Your task to perform on an android device: delete browsing data in the chrome app Image 0: 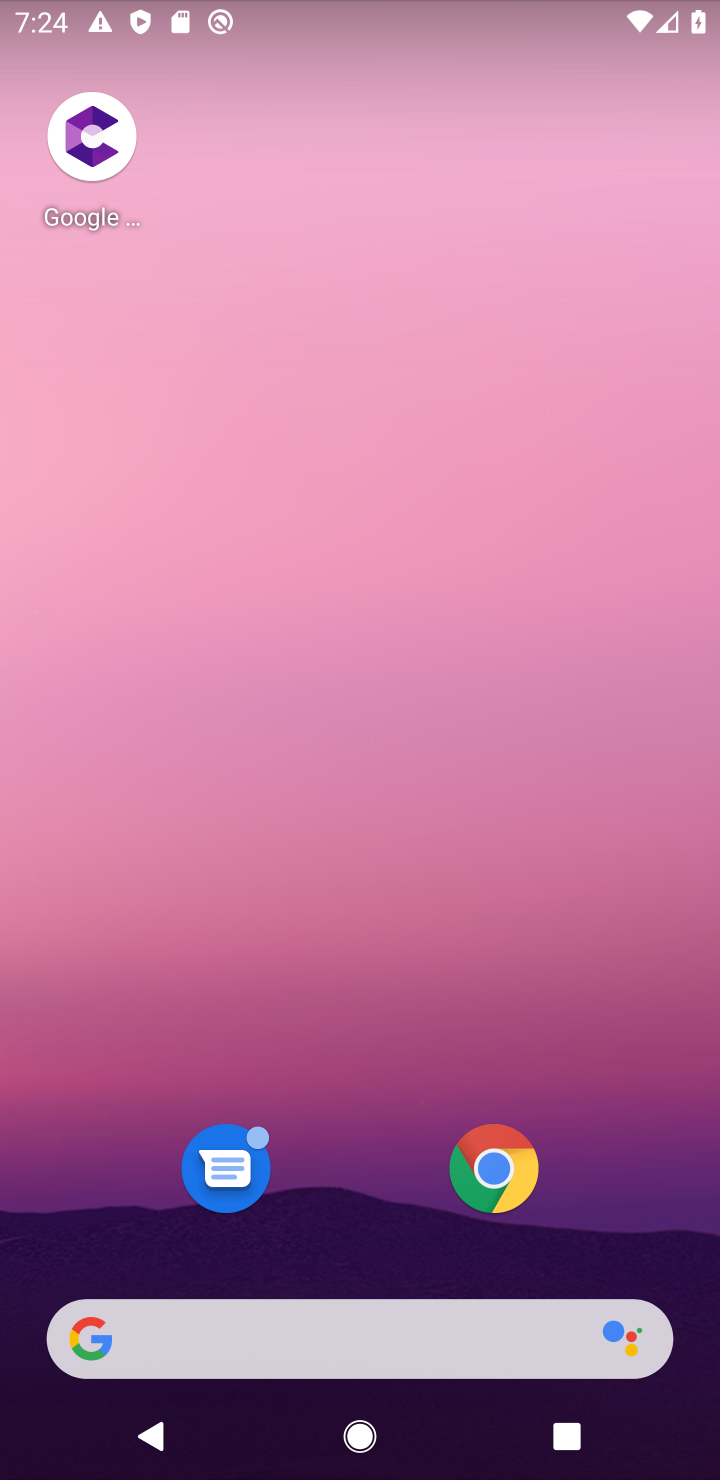
Step 0: click (492, 1171)
Your task to perform on an android device: delete browsing data in the chrome app Image 1: 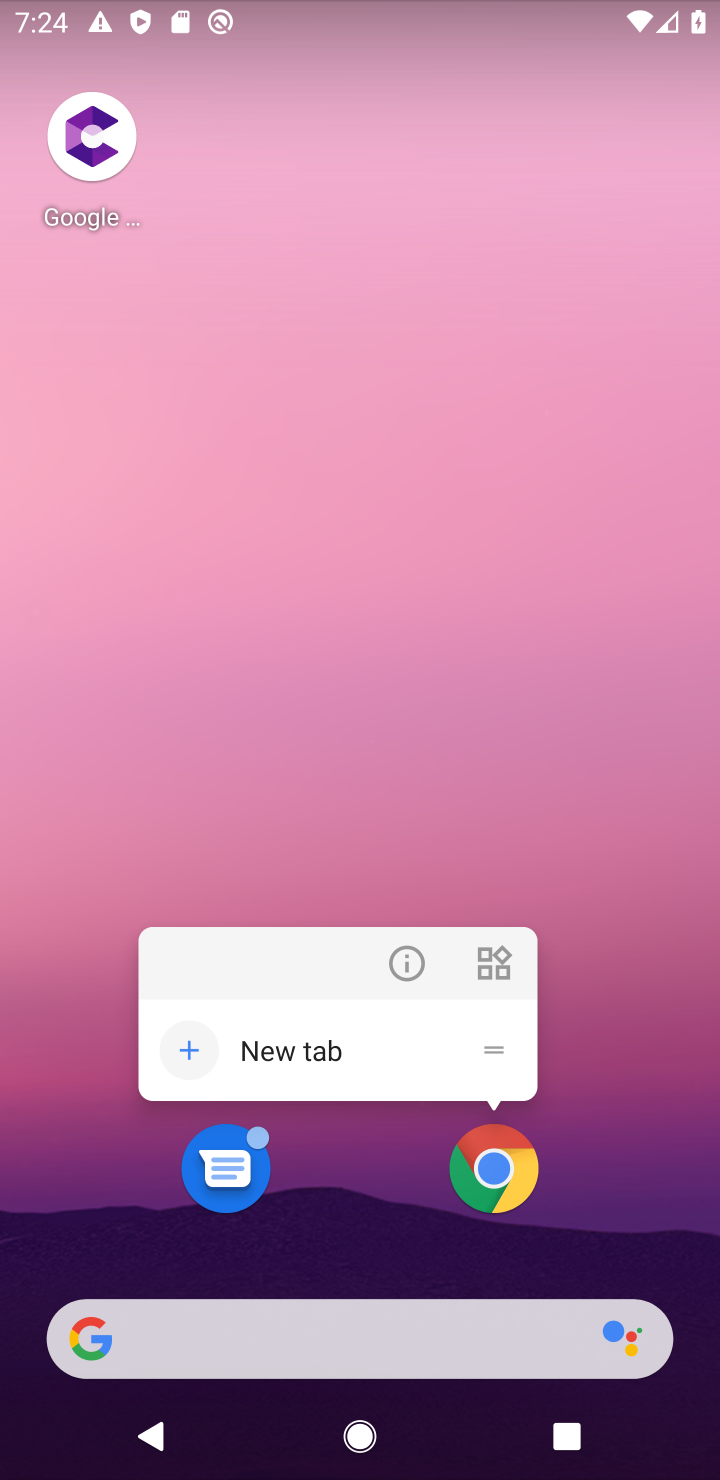
Step 1: click (492, 1171)
Your task to perform on an android device: delete browsing data in the chrome app Image 2: 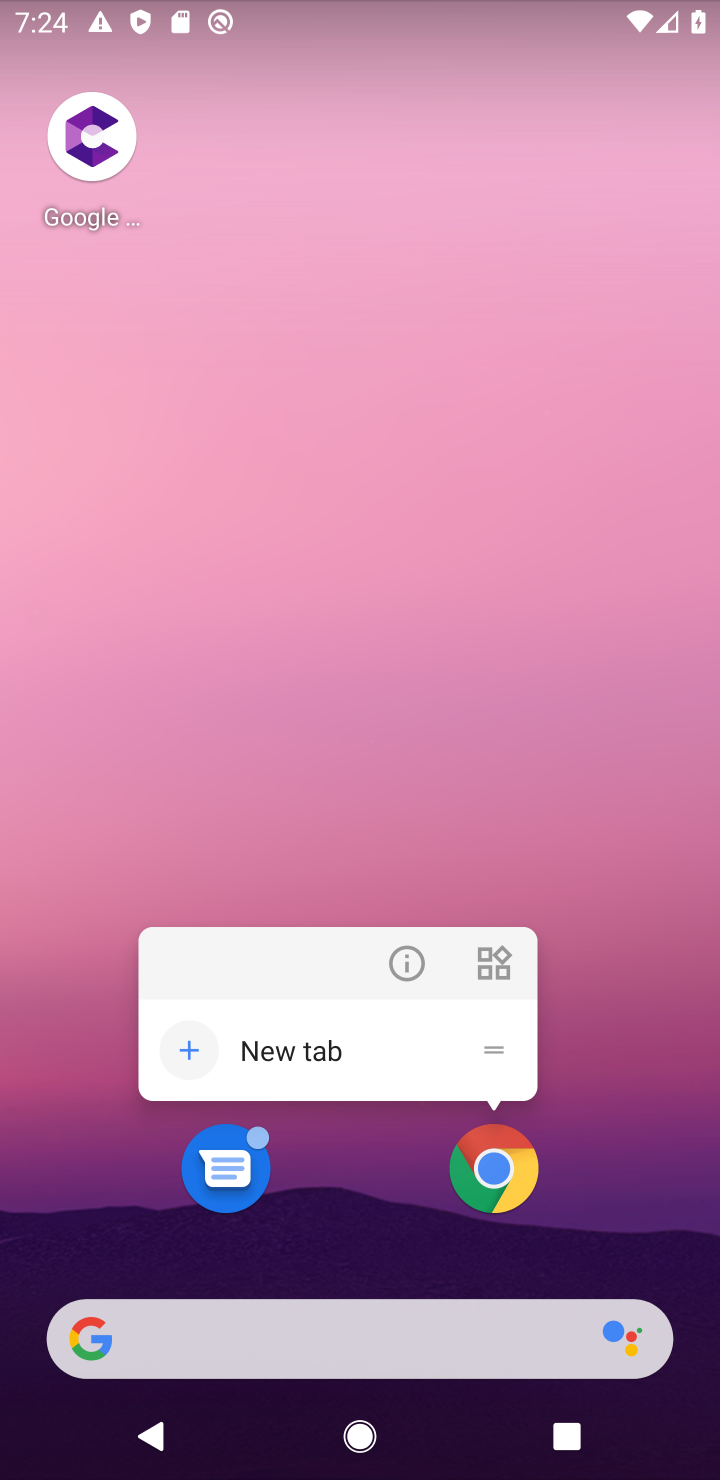
Step 2: click (492, 1171)
Your task to perform on an android device: delete browsing data in the chrome app Image 3: 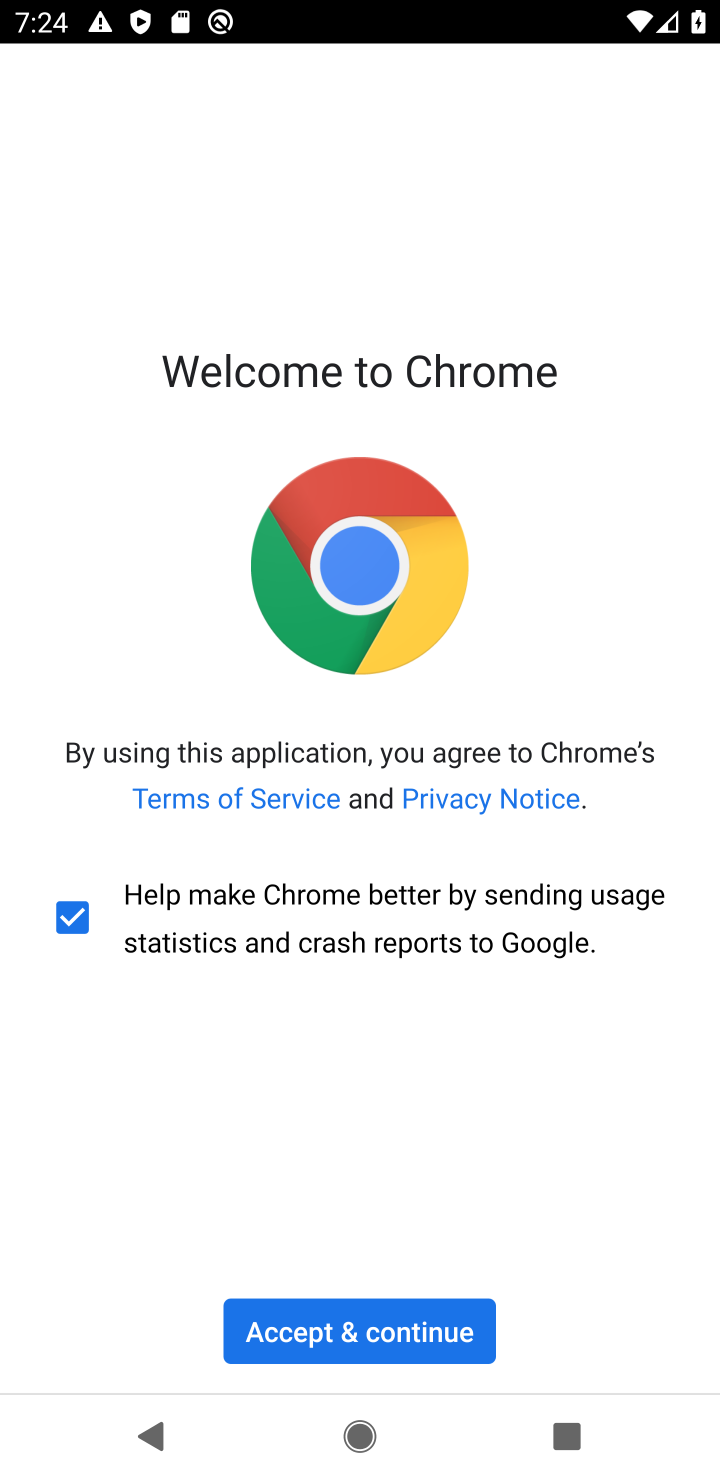
Step 3: click (377, 1328)
Your task to perform on an android device: delete browsing data in the chrome app Image 4: 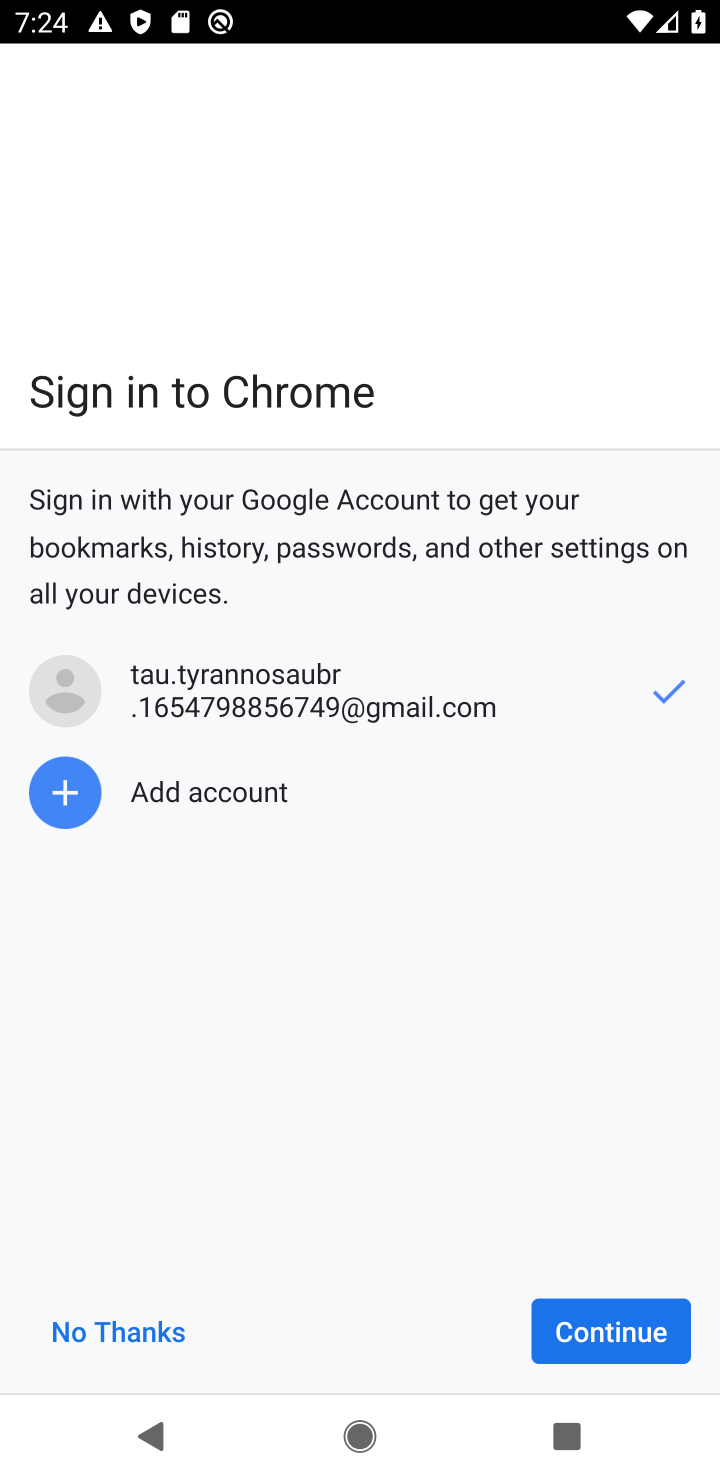
Step 4: click (559, 1332)
Your task to perform on an android device: delete browsing data in the chrome app Image 5: 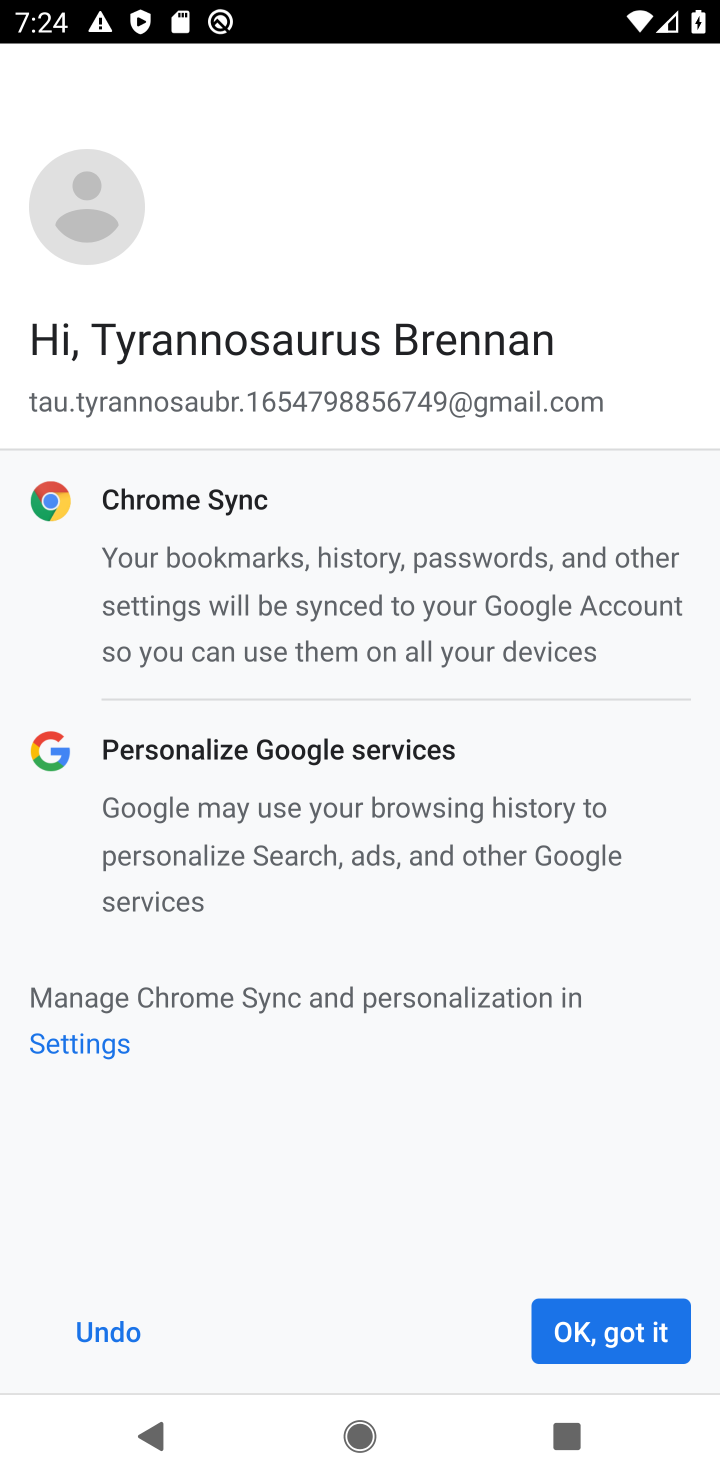
Step 5: click (559, 1332)
Your task to perform on an android device: delete browsing data in the chrome app Image 6: 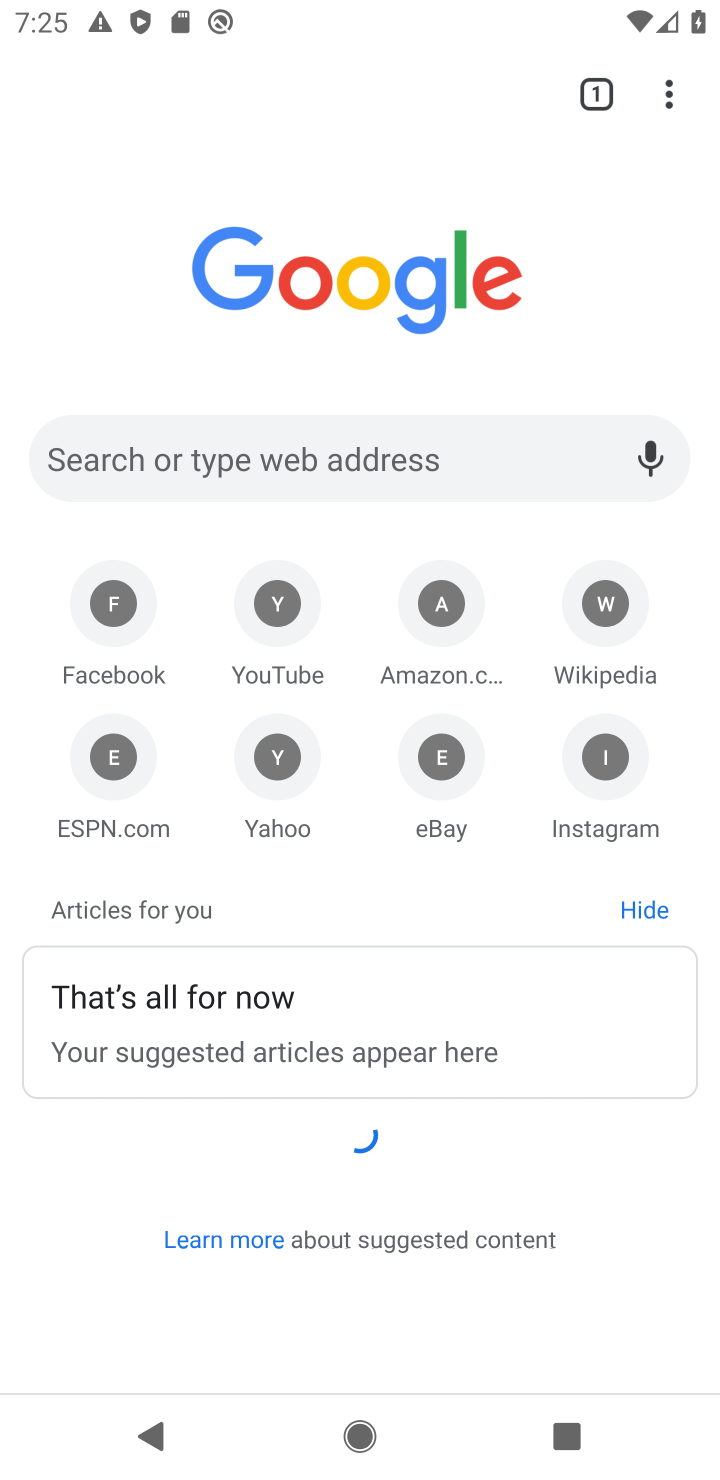
Step 6: click (675, 96)
Your task to perform on an android device: delete browsing data in the chrome app Image 7: 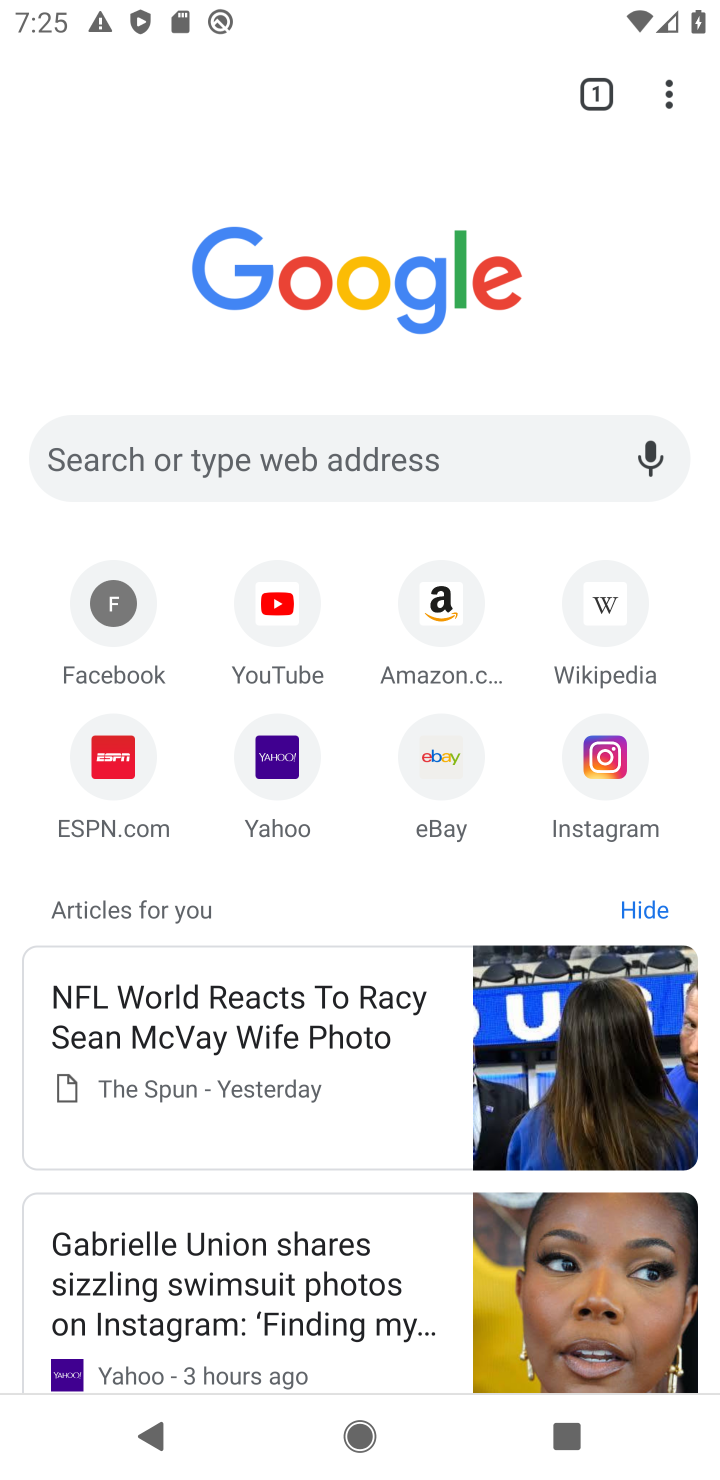
Step 7: drag from (661, 84) to (531, 782)
Your task to perform on an android device: delete browsing data in the chrome app Image 8: 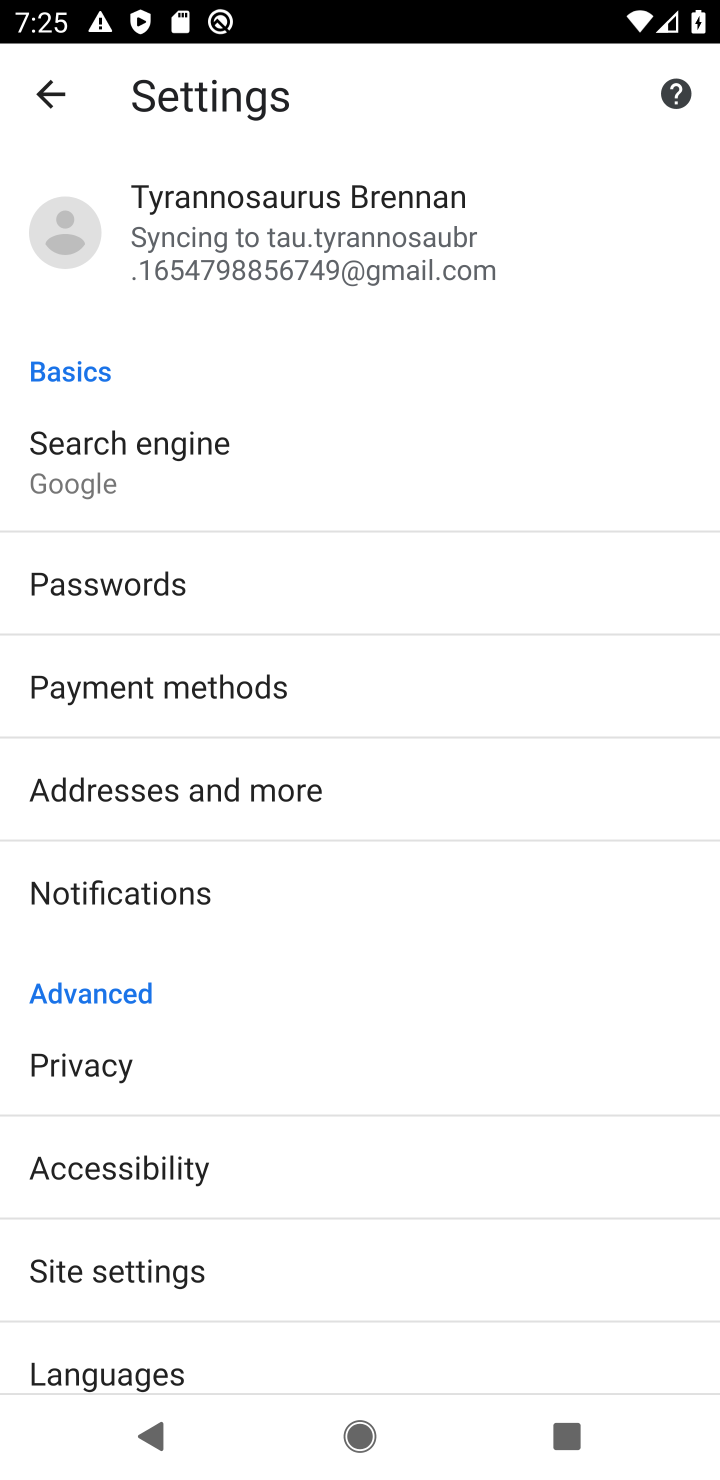
Step 8: drag from (273, 1243) to (452, 712)
Your task to perform on an android device: delete browsing data in the chrome app Image 9: 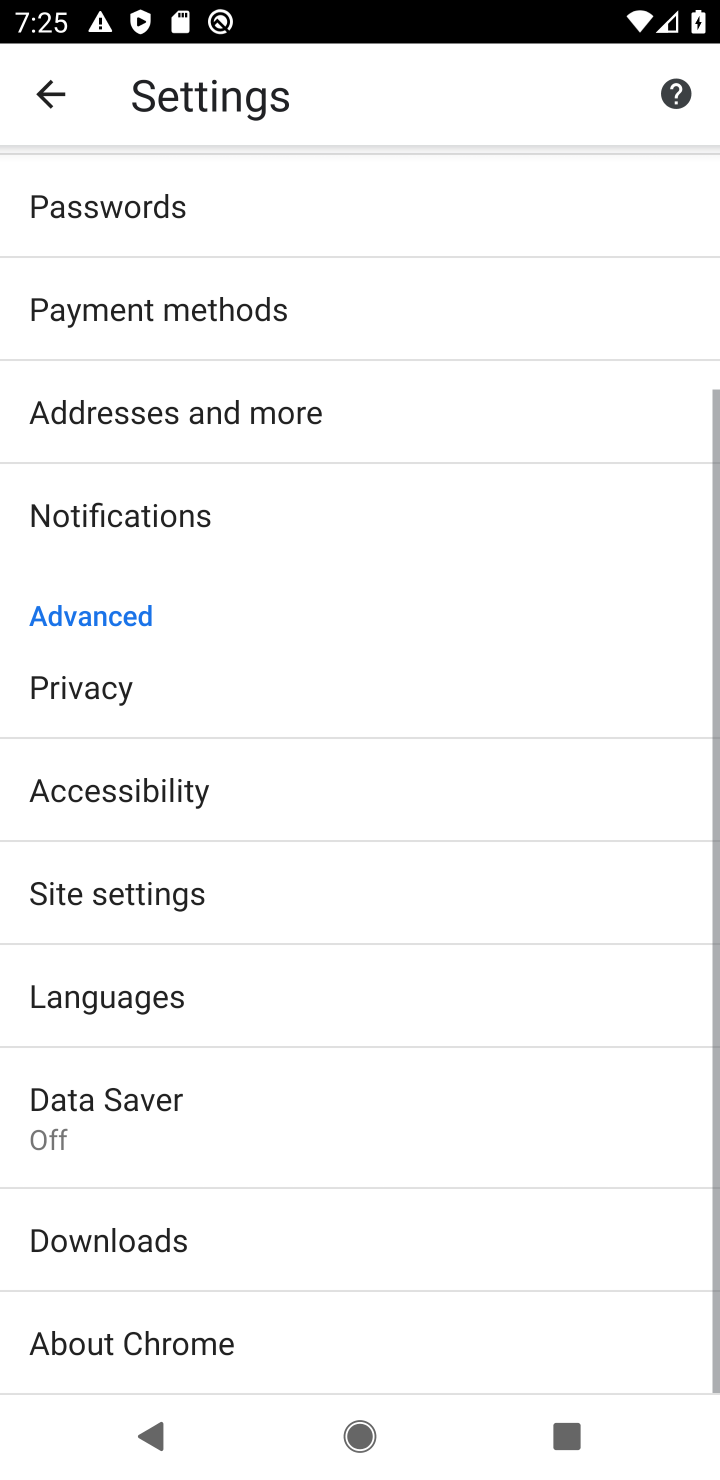
Step 9: click (84, 683)
Your task to perform on an android device: delete browsing data in the chrome app Image 10: 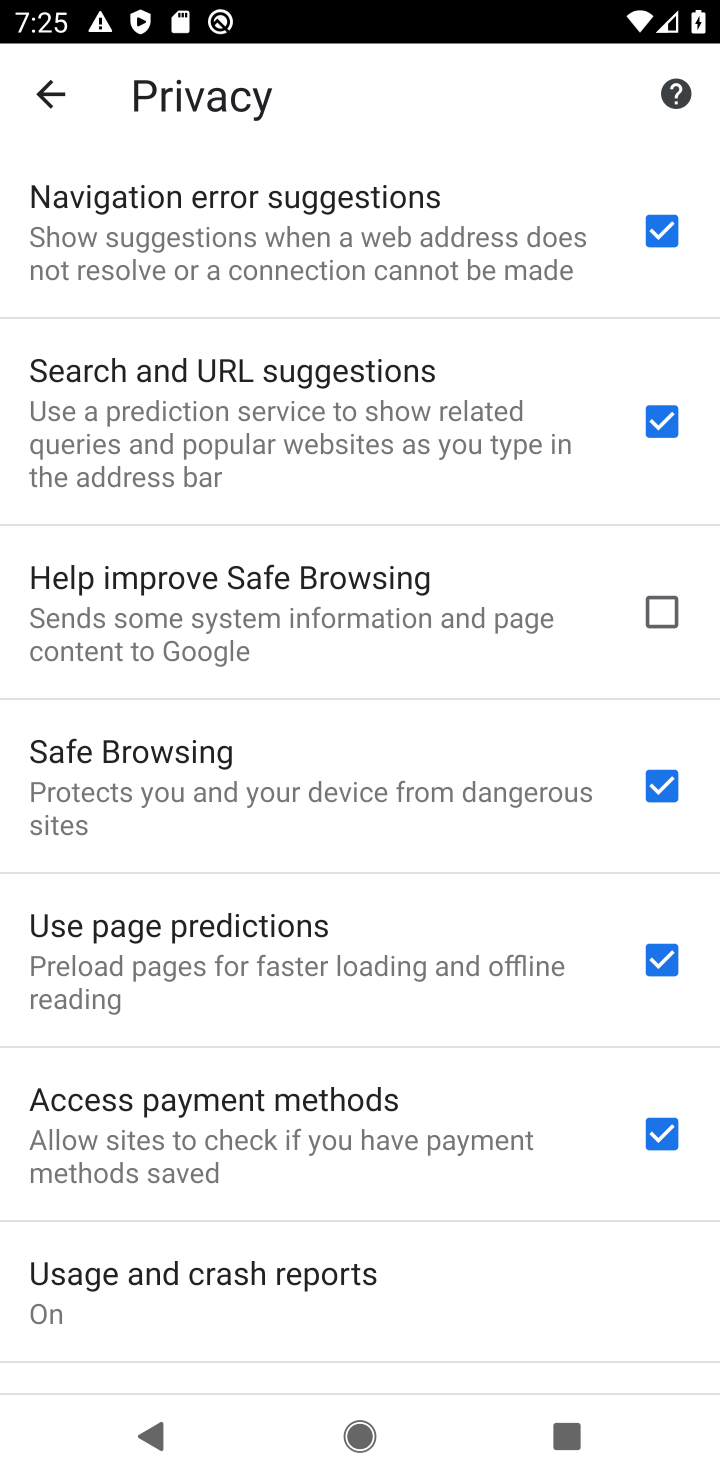
Step 10: drag from (438, 1226) to (564, 83)
Your task to perform on an android device: delete browsing data in the chrome app Image 11: 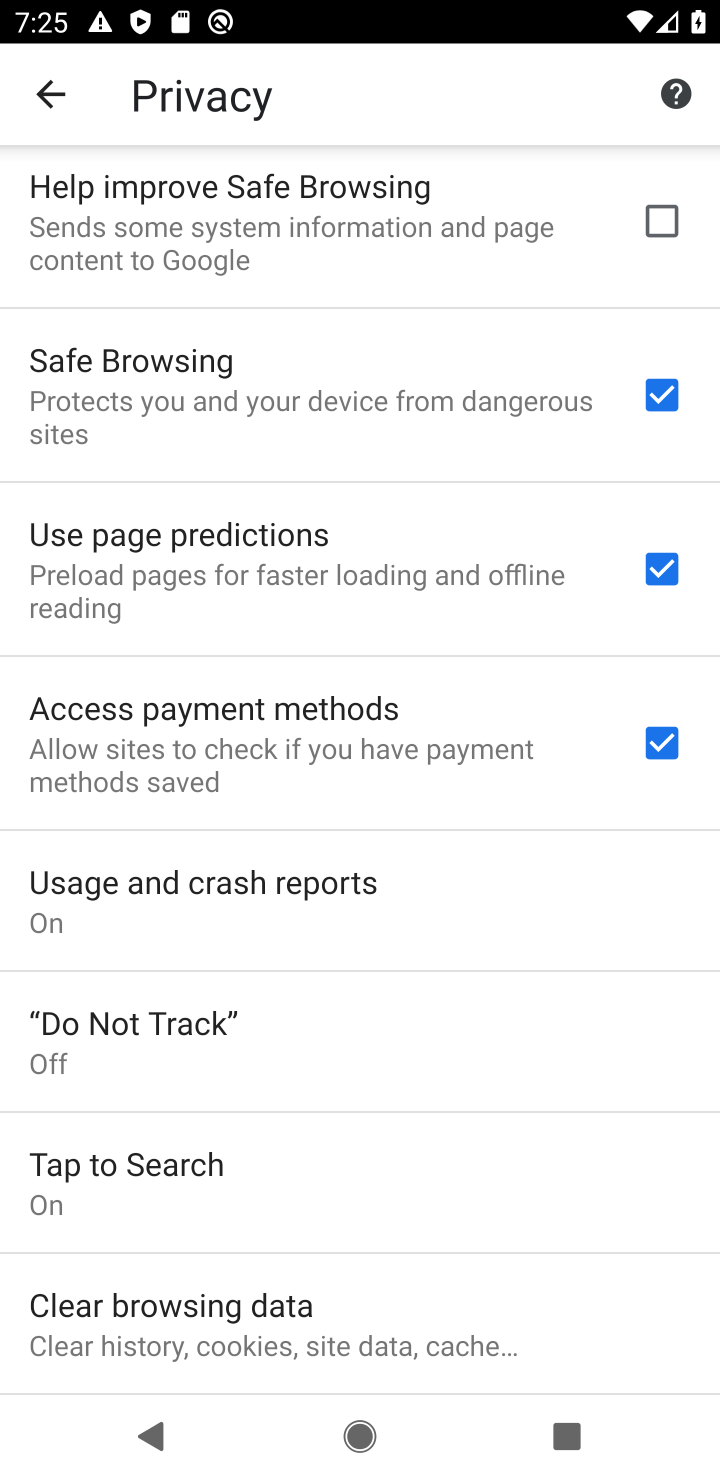
Step 11: click (240, 1312)
Your task to perform on an android device: delete browsing data in the chrome app Image 12: 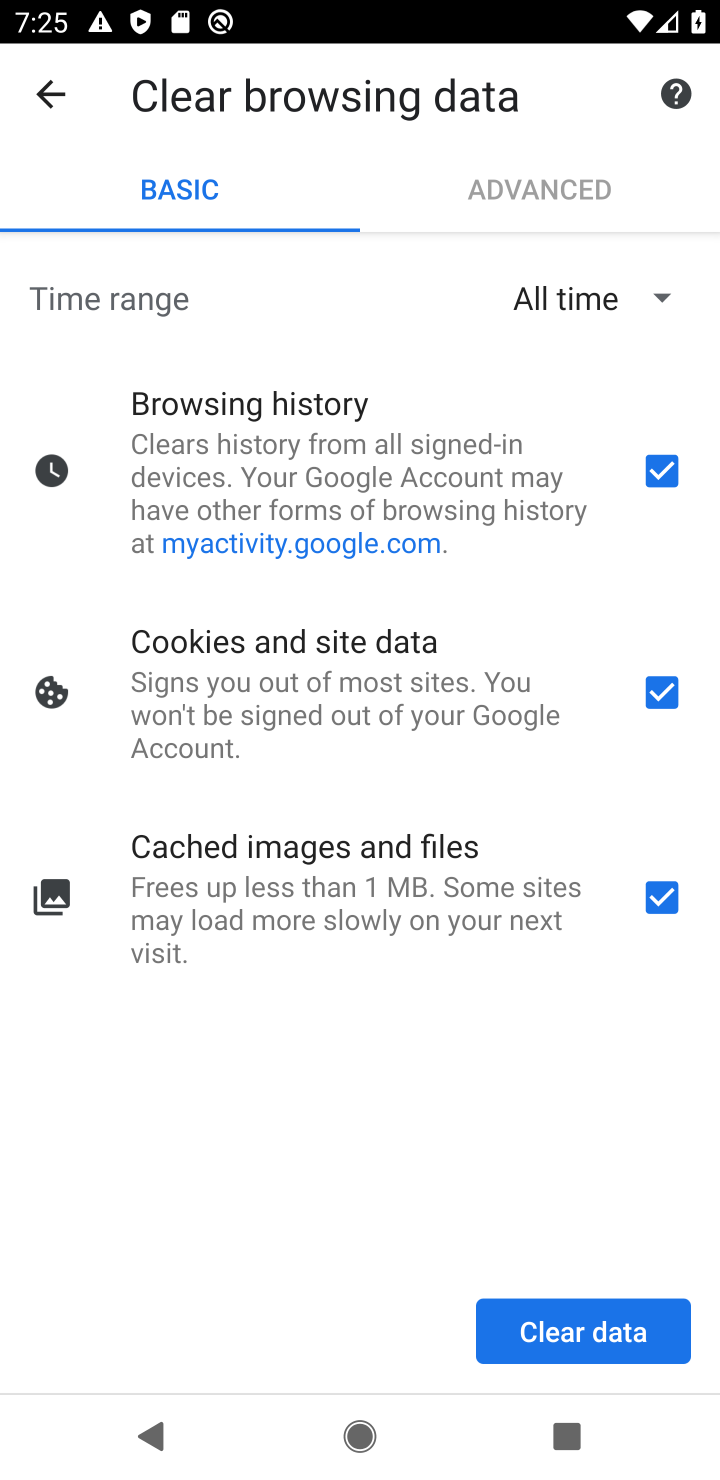
Step 12: click (617, 1334)
Your task to perform on an android device: delete browsing data in the chrome app Image 13: 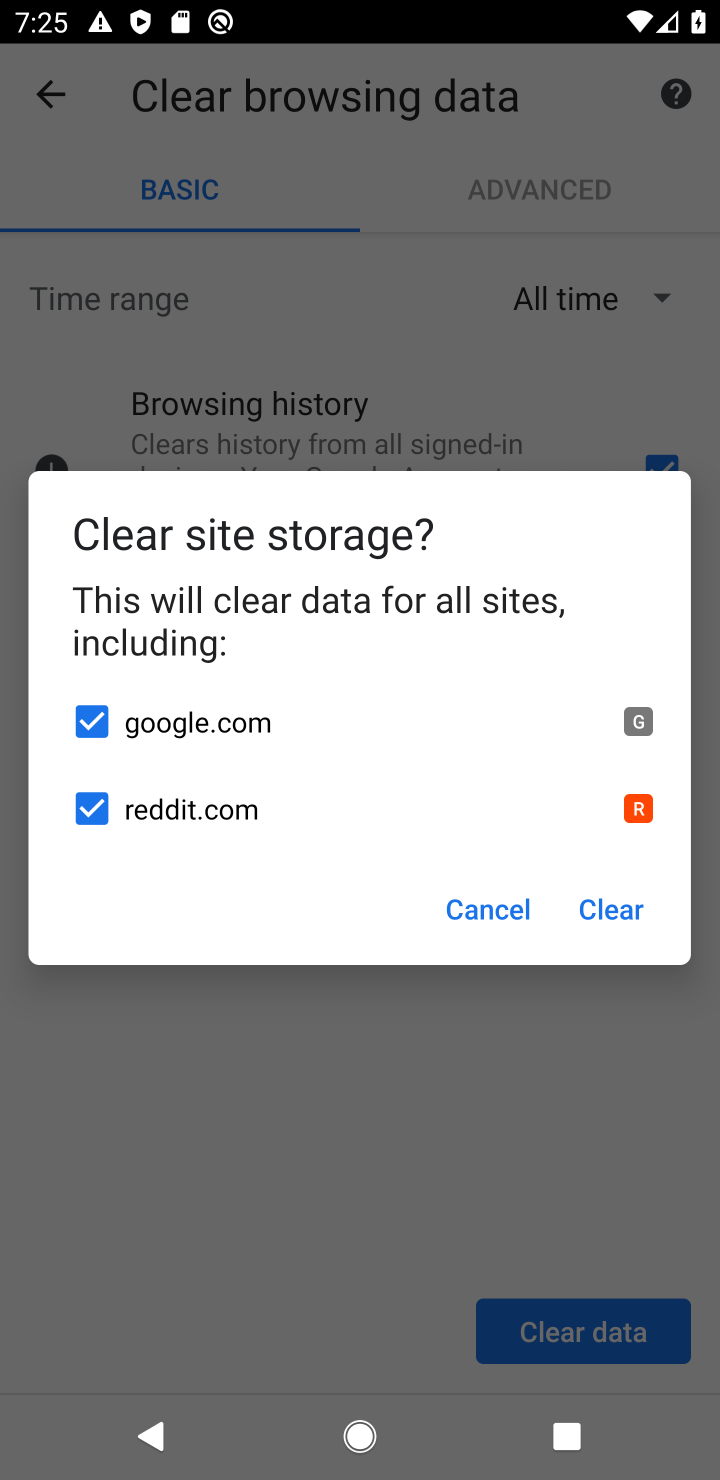
Step 13: click (623, 899)
Your task to perform on an android device: delete browsing data in the chrome app Image 14: 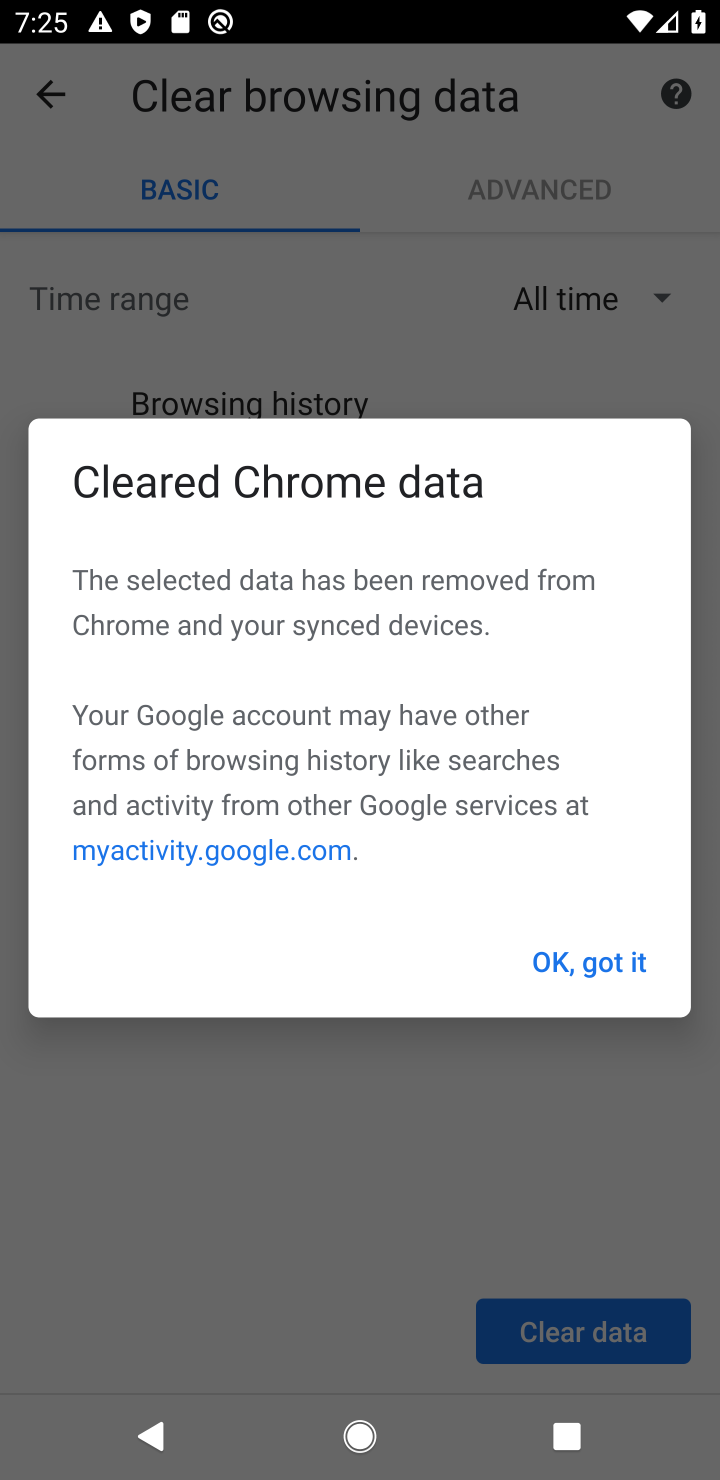
Step 14: click (609, 947)
Your task to perform on an android device: delete browsing data in the chrome app Image 15: 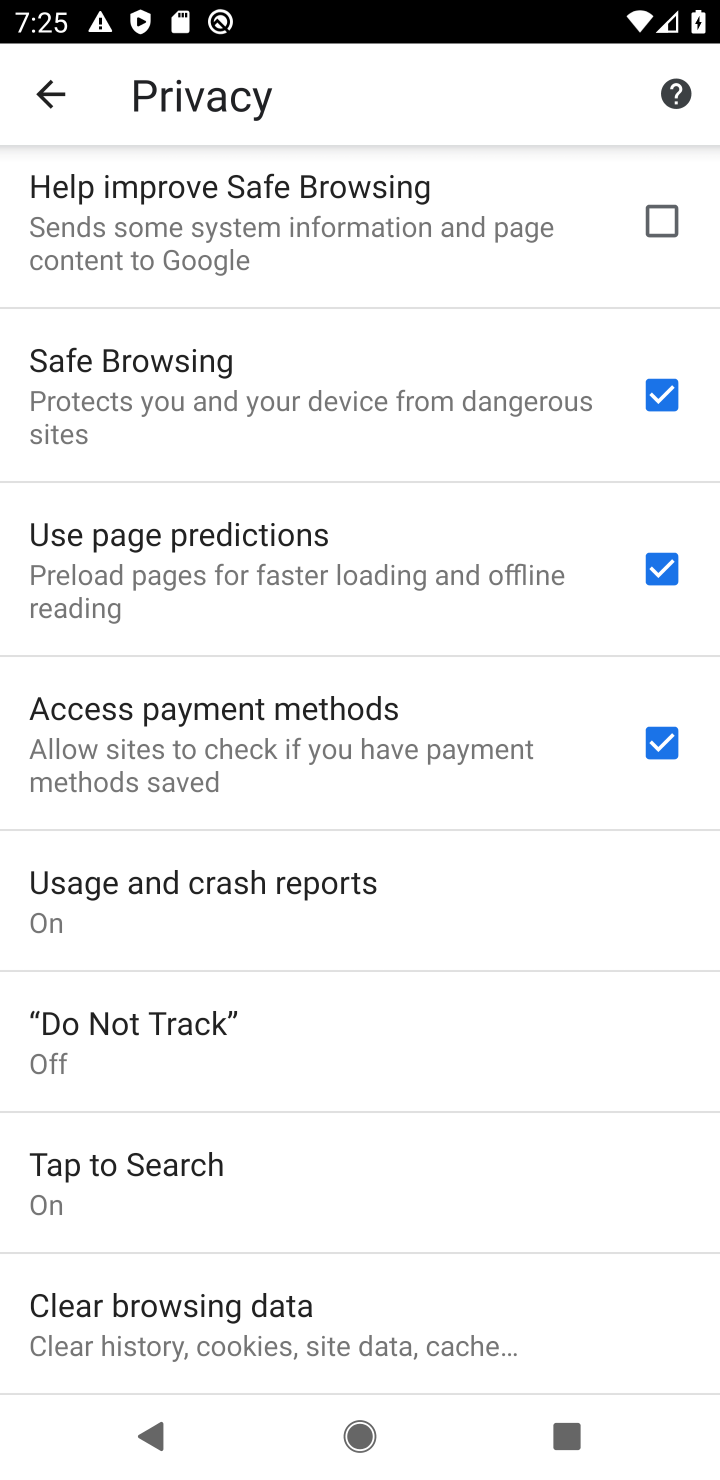
Step 15: task complete